Your task to perform on an android device: toggle data saver in the chrome app Image 0: 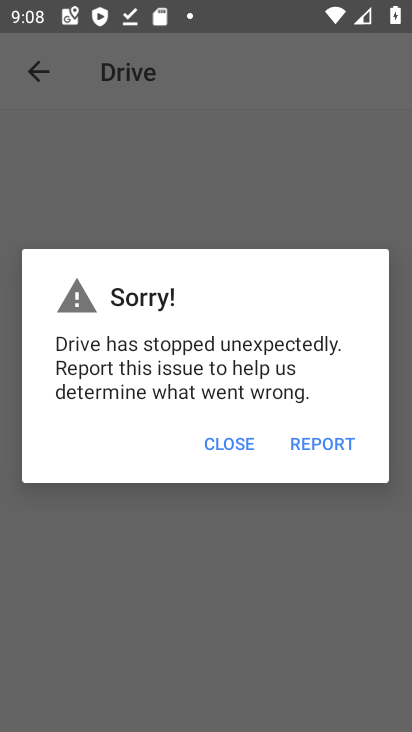
Step 0: click (233, 447)
Your task to perform on an android device: toggle data saver in the chrome app Image 1: 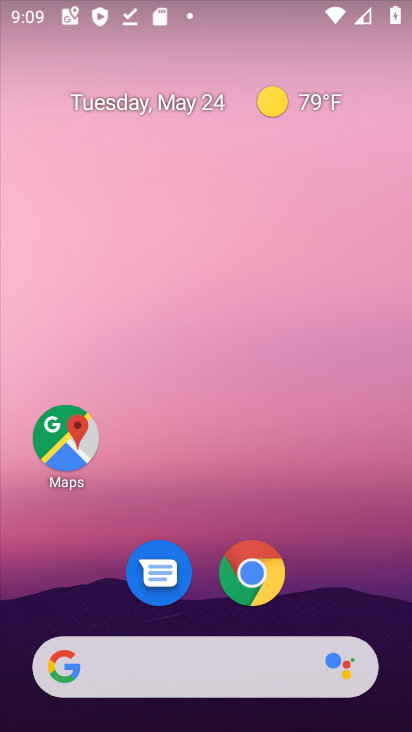
Step 1: drag from (330, 666) to (196, 142)
Your task to perform on an android device: toggle data saver in the chrome app Image 2: 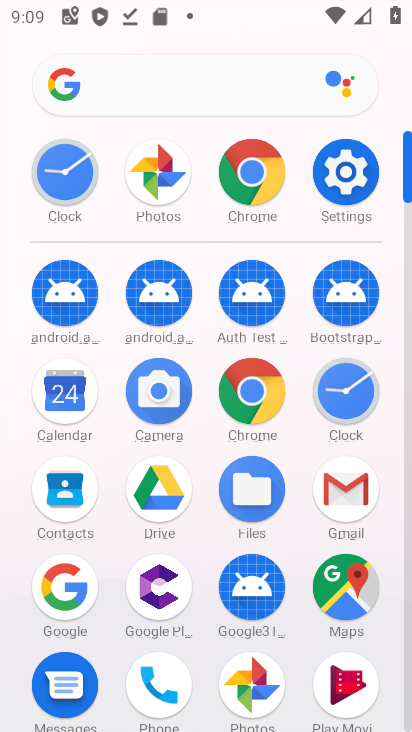
Step 2: click (245, 397)
Your task to perform on an android device: toggle data saver in the chrome app Image 3: 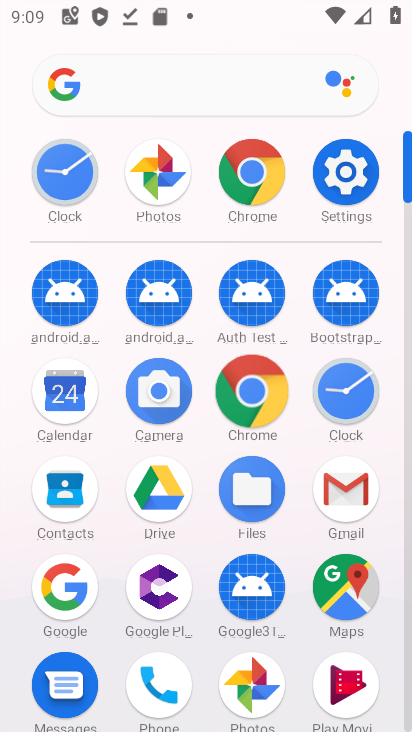
Step 3: click (246, 396)
Your task to perform on an android device: toggle data saver in the chrome app Image 4: 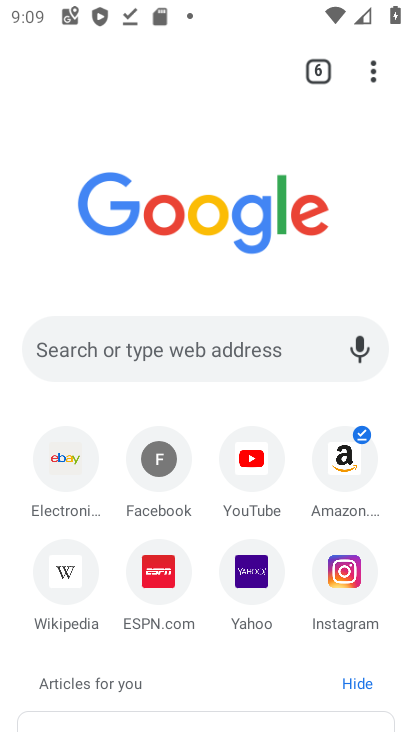
Step 4: drag from (371, 72) to (86, 606)
Your task to perform on an android device: toggle data saver in the chrome app Image 5: 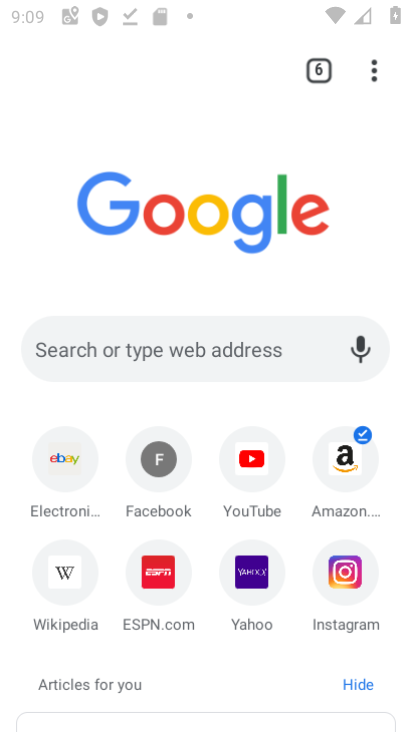
Step 5: click (87, 606)
Your task to perform on an android device: toggle data saver in the chrome app Image 6: 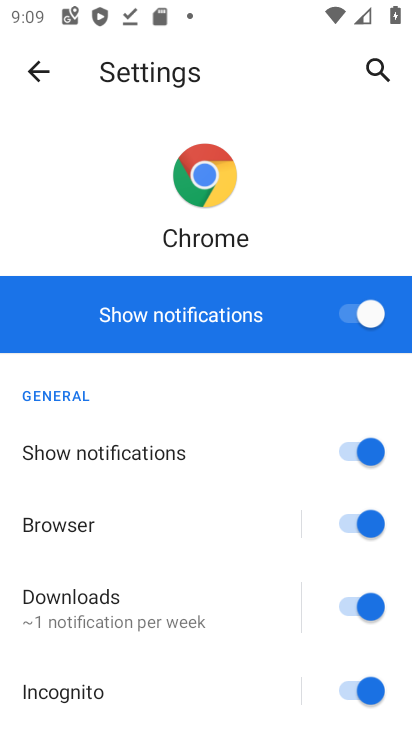
Step 6: click (24, 74)
Your task to perform on an android device: toggle data saver in the chrome app Image 7: 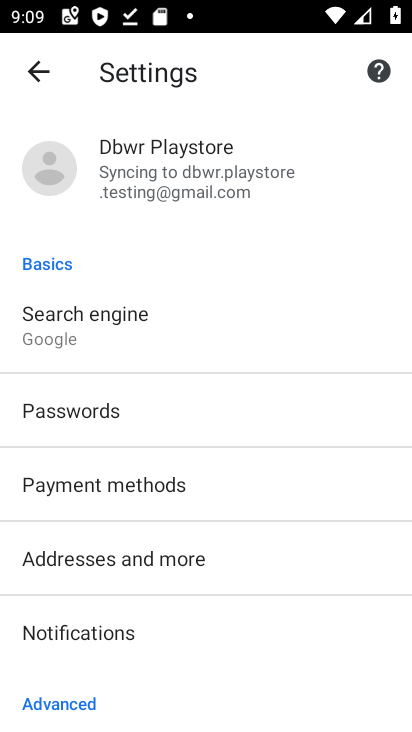
Step 7: drag from (143, 616) to (178, 242)
Your task to perform on an android device: toggle data saver in the chrome app Image 8: 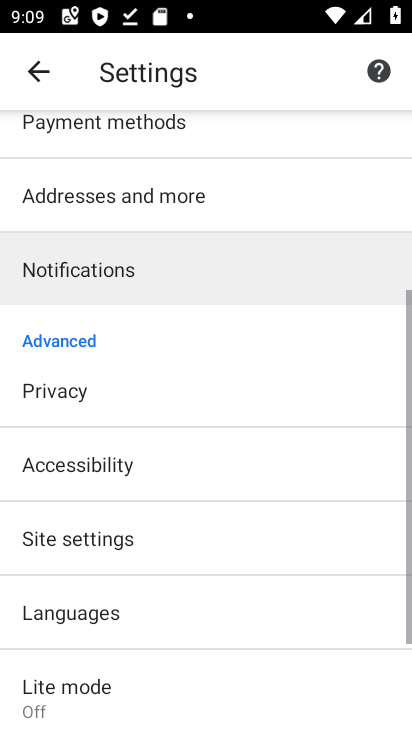
Step 8: drag from (199, 506) to (179, 202)
Your task to perform on an android device: toggle data saver in the chrome app Image 9: 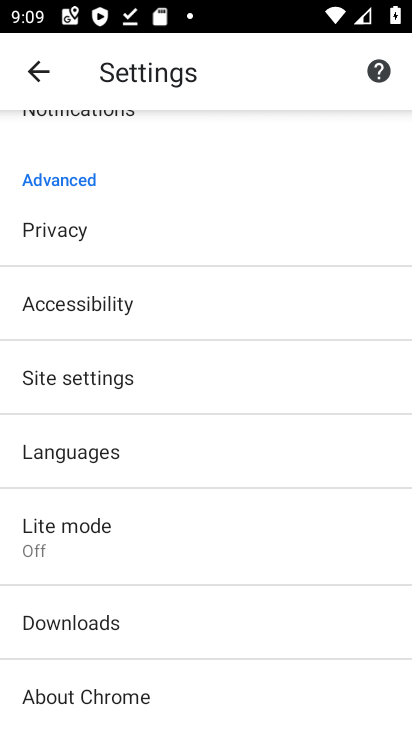
Step 9: click (61, 522)
Your task to perform on an android device: toggle data saver in the chrome app Image 10: 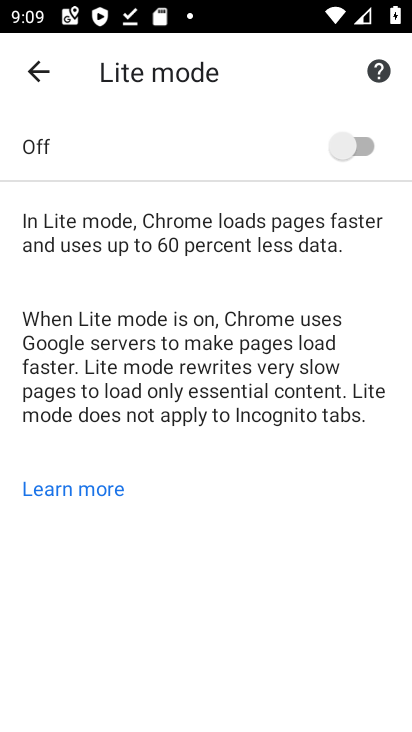
Step 10: click (346, 150)
Your task to perform on an android device: toggle data saver in the chrome app Image 11: 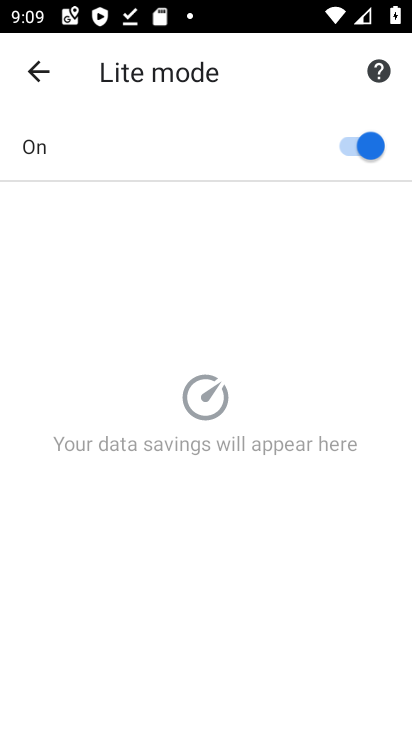
Step 11: task complete